Your task to perform on an android device: What's the weather today? Image 0: 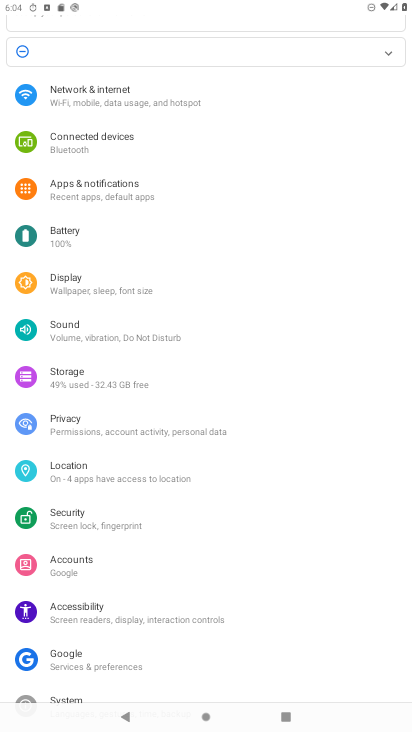
Step 0: press home button
Your task to perform on an android device: What's the weather today? Image 1: 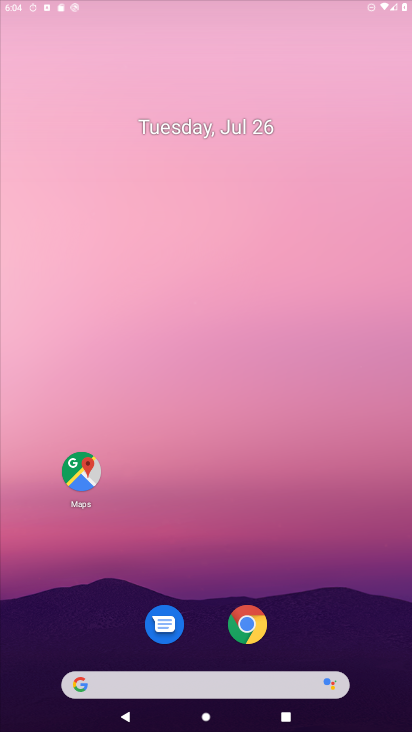
Step 1: drag from (229, 561) to (163, 2)
Your task to perform on an android device: What's the weather today? Image 2: 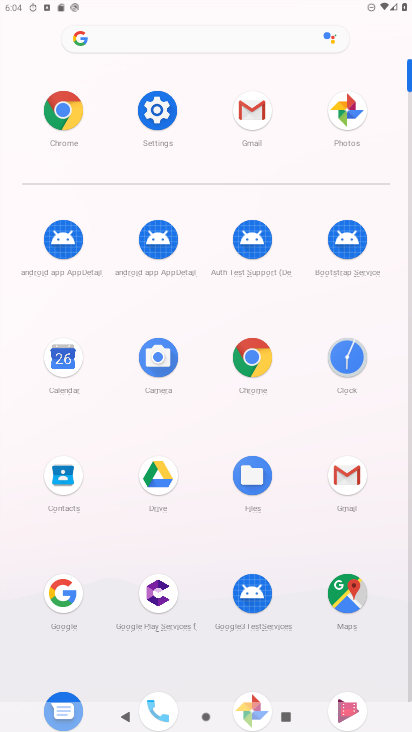
Step 2: click (257, 358)
Your task to perform on an android device: What's the weather today? Image 3: 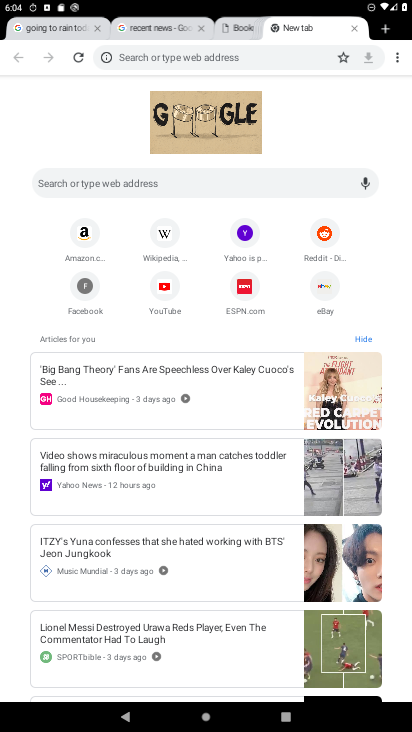
Step 3: click (185, 65)
Your task to perform on an android device: What's the weather today? Image 4: 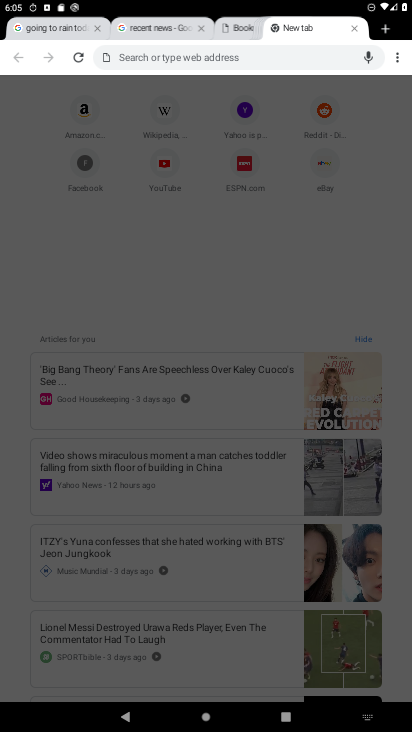
Step 4: type "weather today"
Your task to perform on an android device: What's the weather today? Image 5: 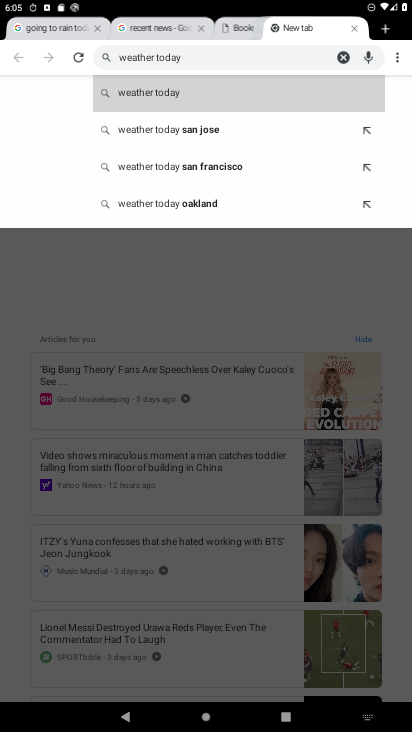
Step 5: click (157, 99)
Your task to perform on an android device: What's the weather today? Image 6: 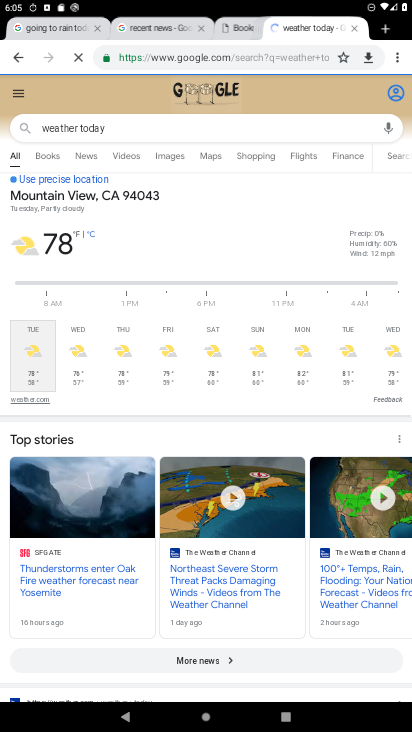
Step 6: task complete